Your task to perform on an android device: toggle data saver in the chrome app Image 0: 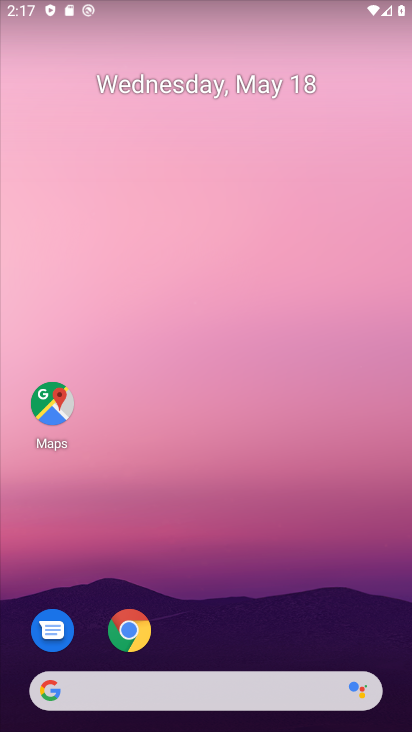
Step 0: click (128, 625)
Your task to perform on an android device: toggle data saver in the chrome app Image 1: 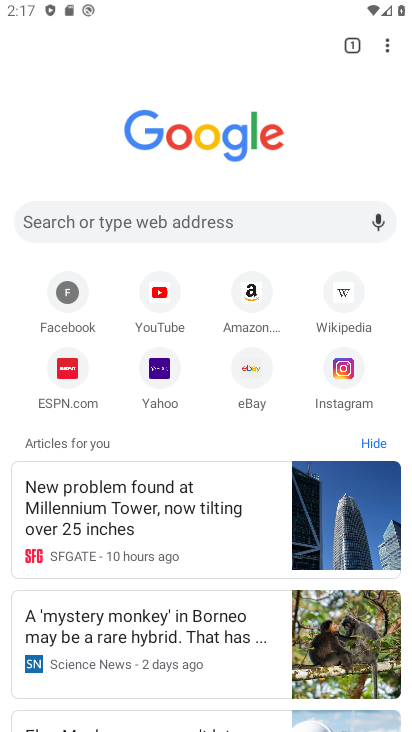
Step 1: click (391, 41)
Your task to perform on an android device: toggle data saver in the chrome app Image 2: 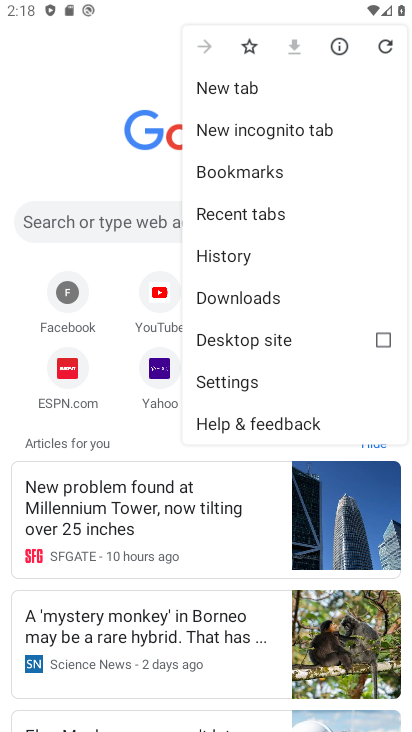
Step 2: click (272, 384)
Your task to perform on an android device: toggle data saver in the chrome app Image 3: 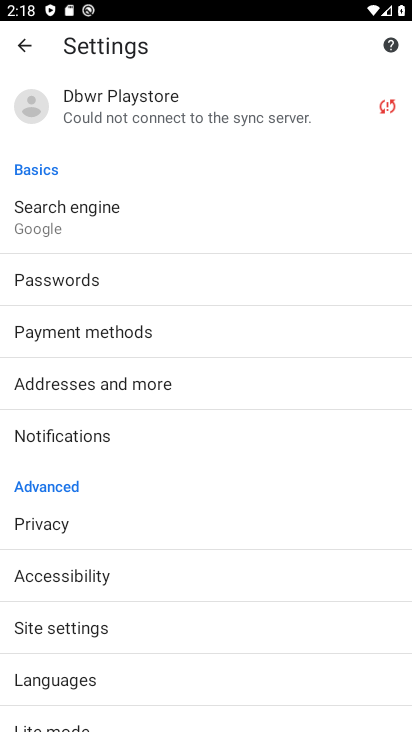
Step 3: click (118, 718)
Your task to perform on an android device: toggle data saver in the chrome app Image 4: 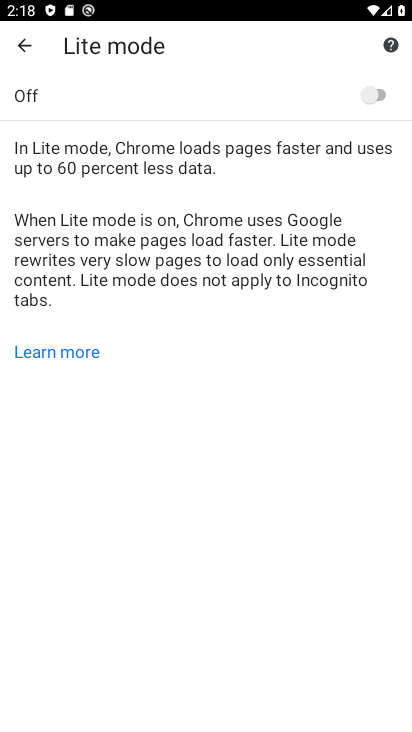
Step 4: click (372, 98)
Your task to perform on an android device: toggle data saver in the chrome app Image 5: 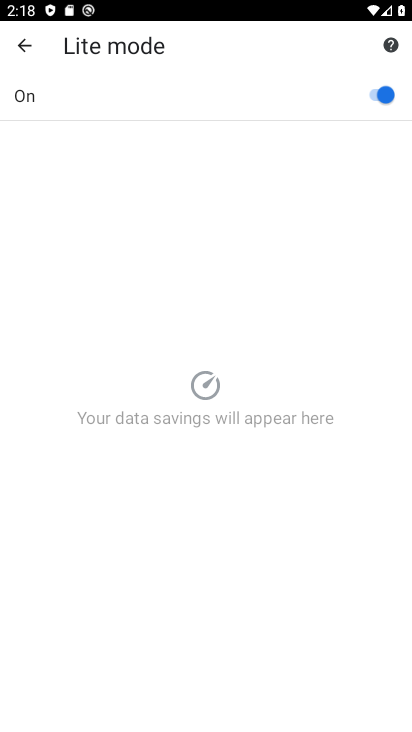
Step 5: task complete